Your task to perform on an android device: create a new album in the google photos Image 0: 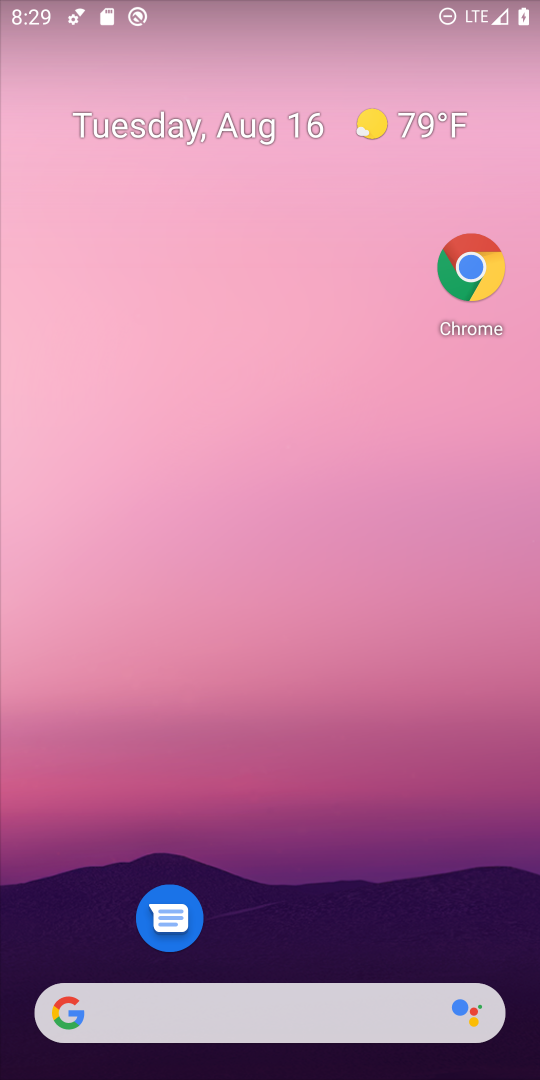
Step 0: drag from (364, 966) to (523, 116)
Your task to perform on an android device: create a new album in the google photos Image 1: 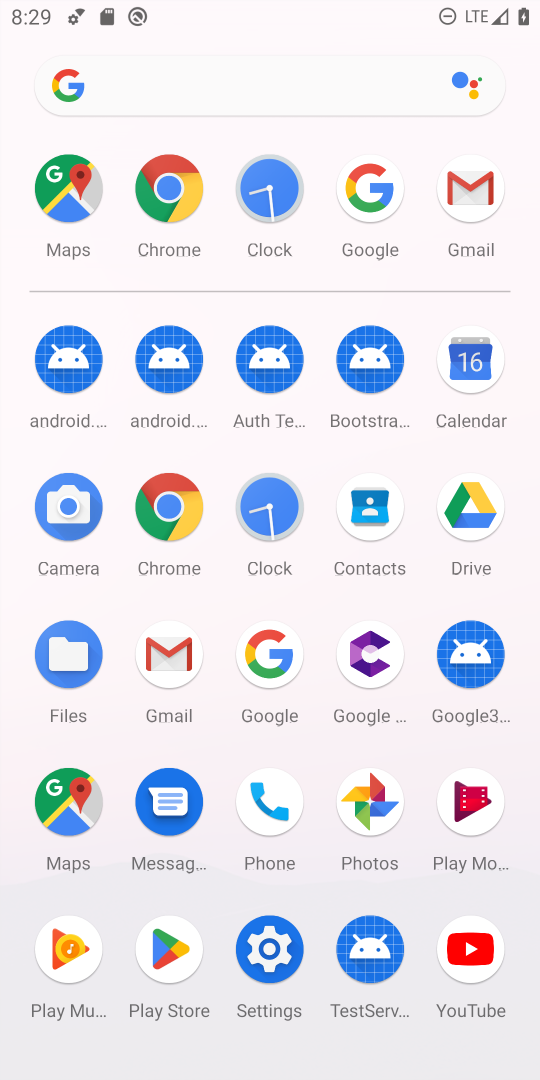
Step 1: click (364, 832)
Your task to perform on an android device: create a new album in the google photos Image 2: 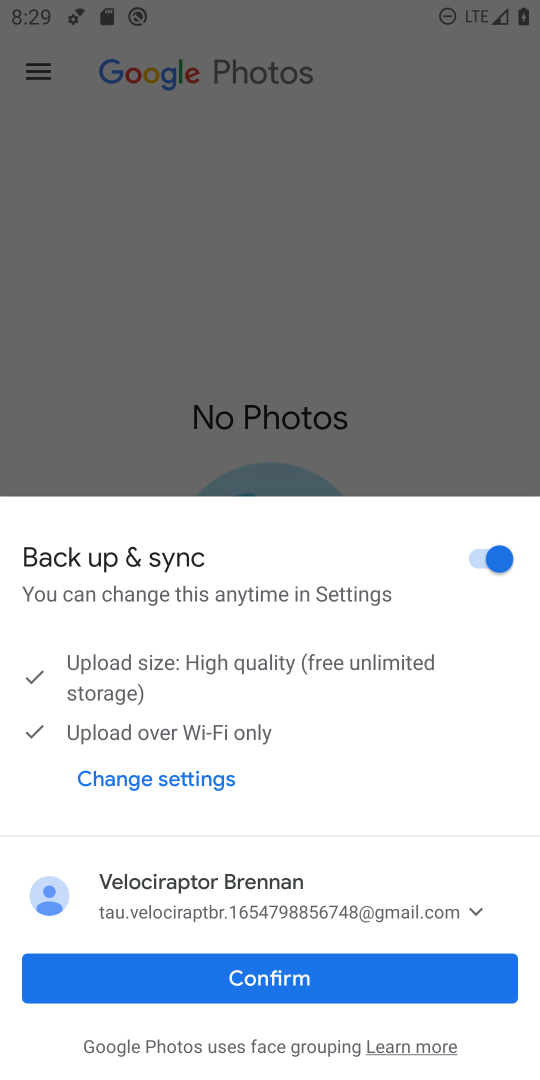
Step 2: click (347, 975)
Your task to perform on an android device: create a new album in the google photos Image 3: 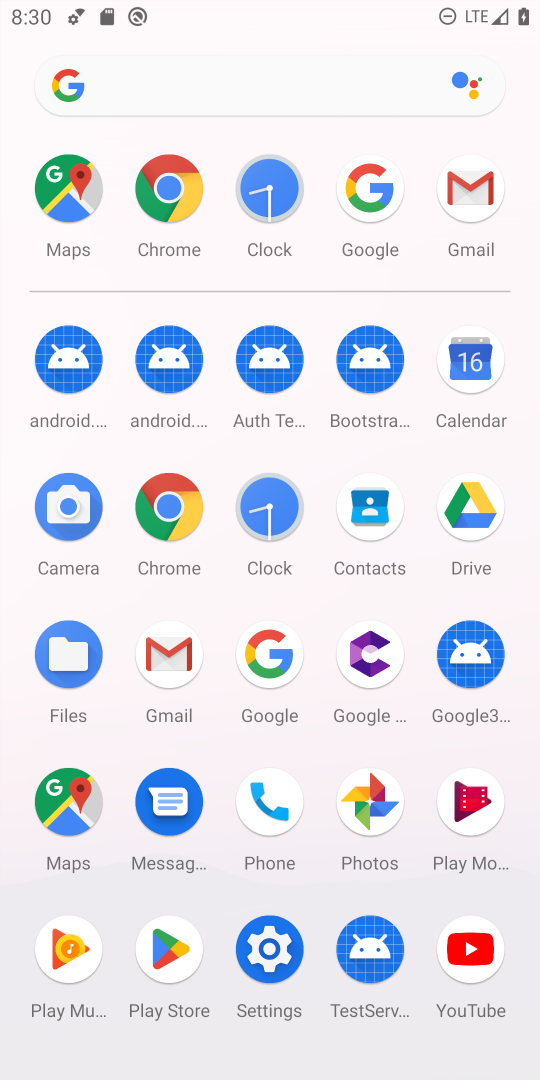
Step 3: click (383, 808)
Your task to perform on an android device: create a new album in the google photos Image 4: 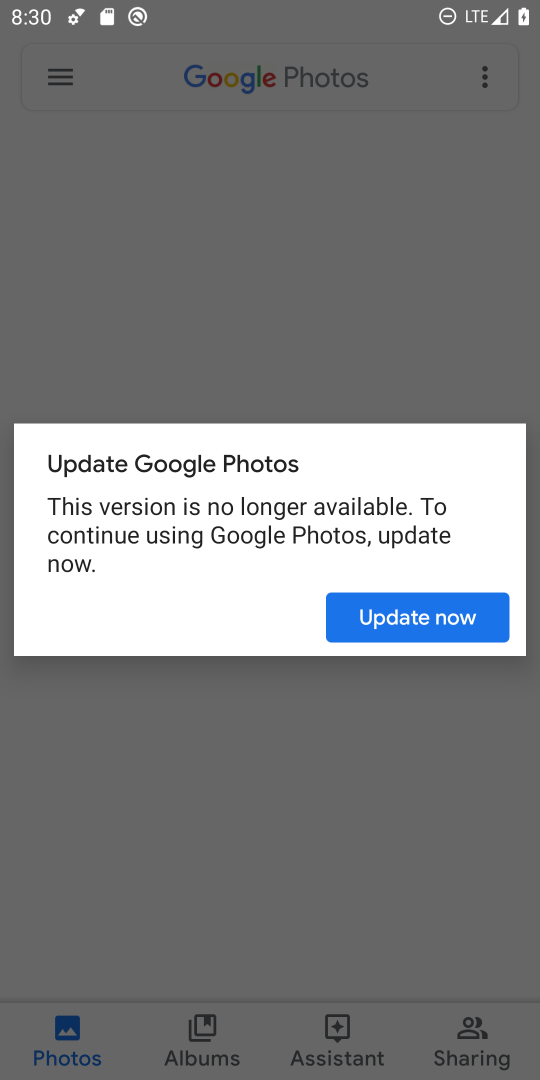
Step 4: task complete